Your task to perform on an android device: remove spam from my inbox in the gmail app Image 0: 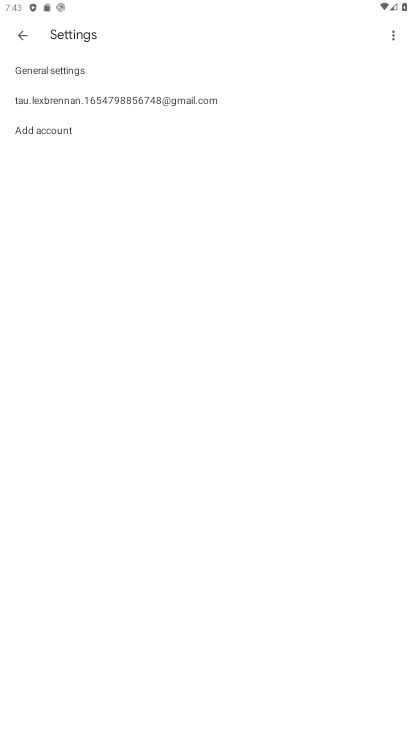
Step 0: click (21, 34)
Your task to perform on an android device: remove spam from my inbox in the gmail app Image 1: 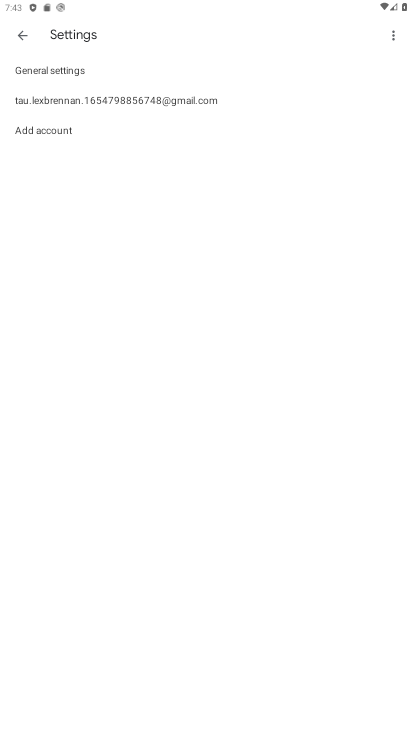
Step 1: click (27, 37)
Your task to perform on an android device: remove spam from my inbox in the gmail app Image 2: 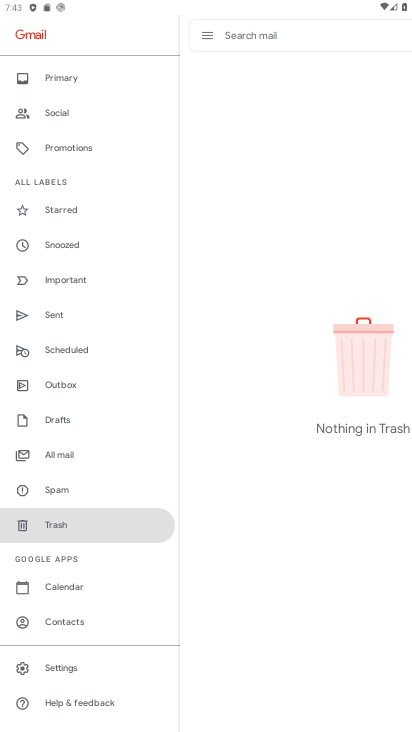
Step 2: click (60, 486)
Your task to perform on an android device: remove spam from my inbox in the gmail app Image 3: 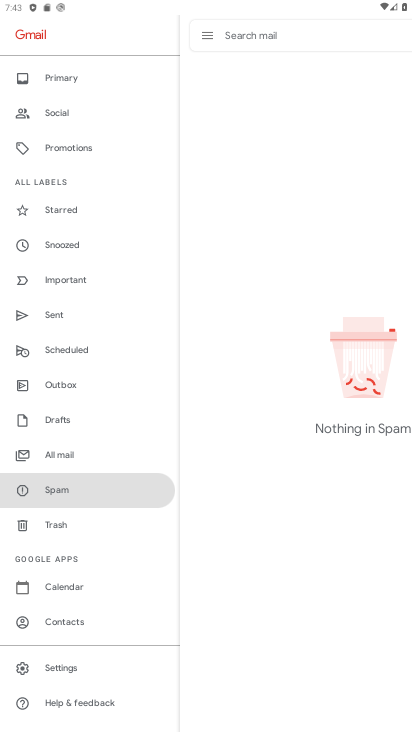
Step 3: task complete